Your task to perform on an android device: turn on wifi Image 0: 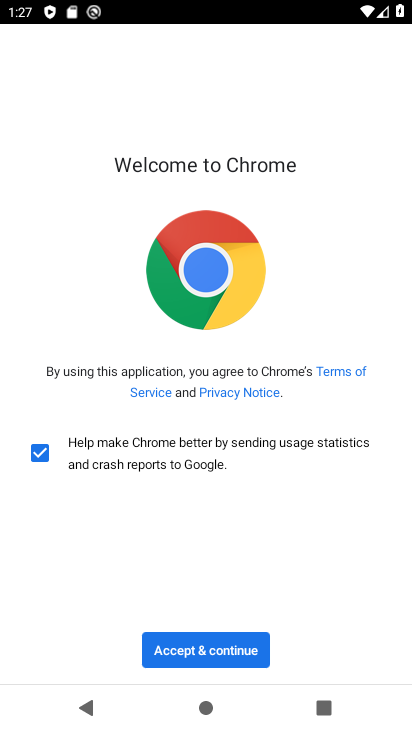
Step 0: press home button
Your task to perform on an android device: turn on wifi Image 1: 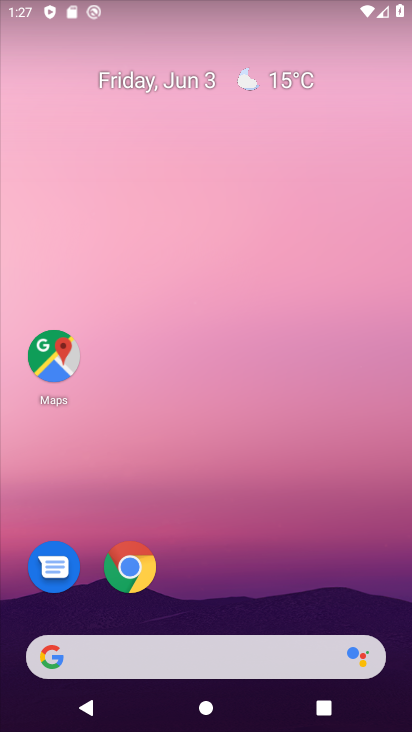
Step 1: drag from (248, 637) to (300, 174)
Your task to perform on an android device: turn on wifi Image 2: 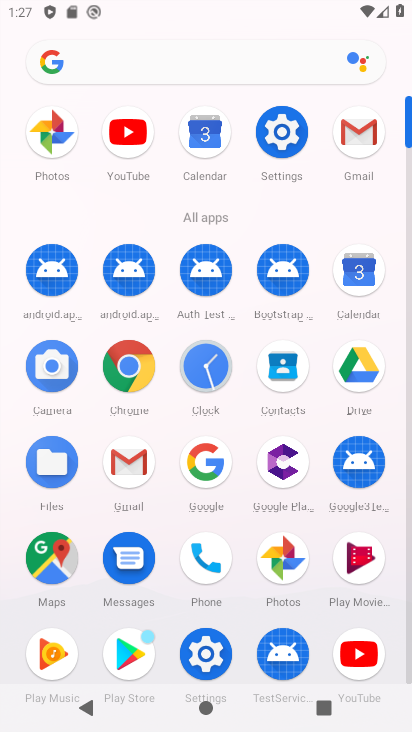
Step 2: click (283, 135)
Your task to perform on an android device: turn on wifi Image 3: 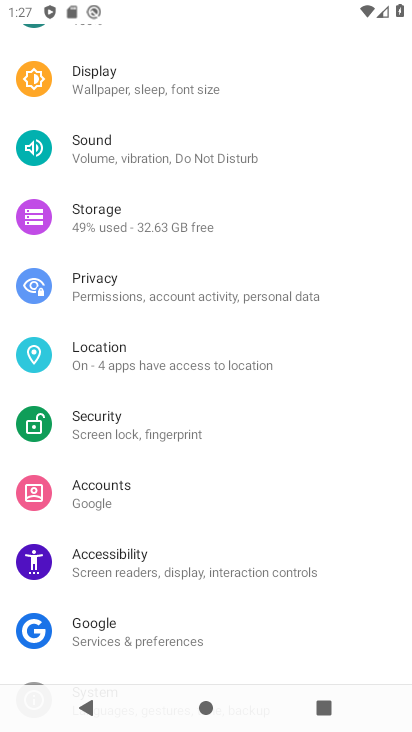
Step 3: drag from (263, 129) to (281, 553)
Your task to perform on an android device: turn on wifi Image 4: 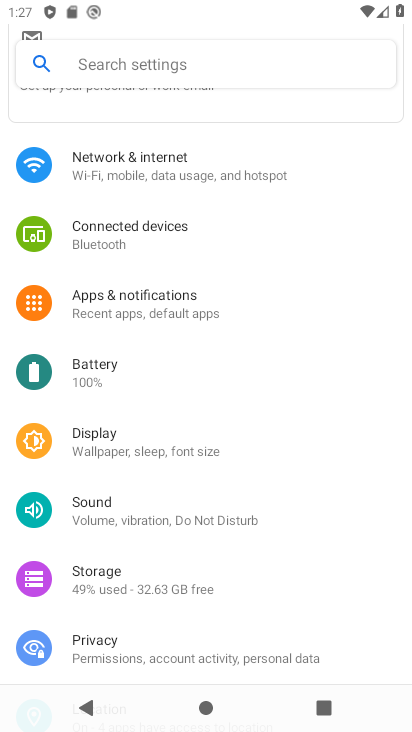
Step 4: click (170, 178)
Your task to perform on an android device: turn on wifi Image 5: 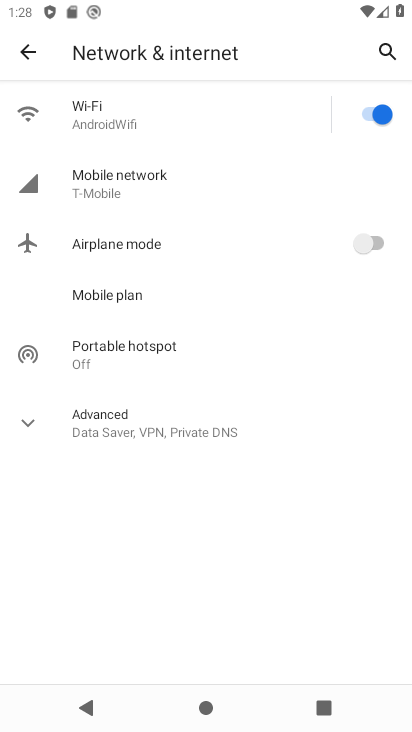
Step 5: task complete